Your task to perform on an android device: Open Amazon Image 0: 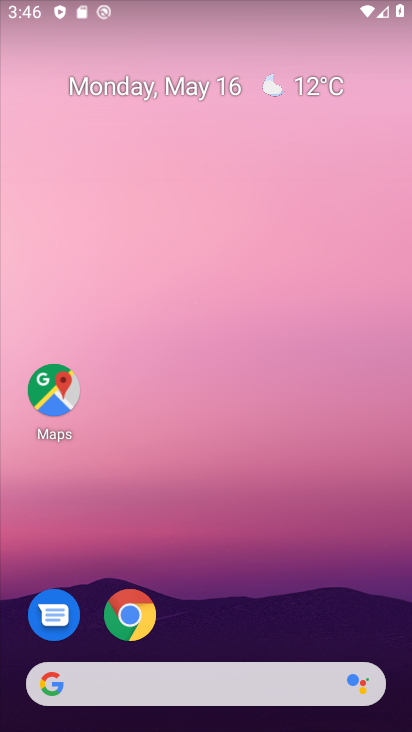
Step 0: click (128, 619)
Your task to perform on an android device: Open Amazon Image 1: 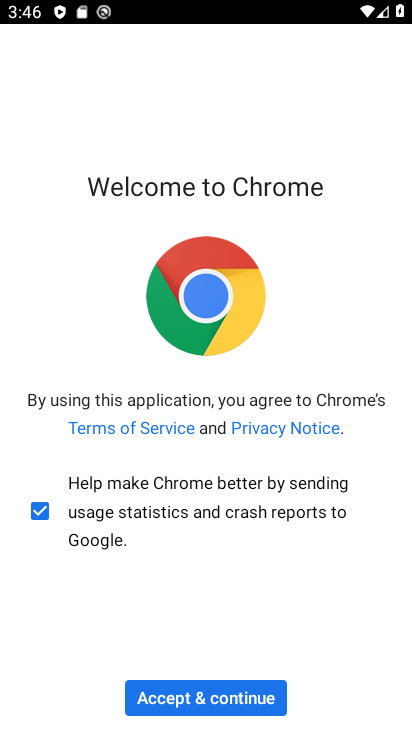
Step 1: click (168, 697)
Your task to perform on an android device: Open Amazon Image 2: 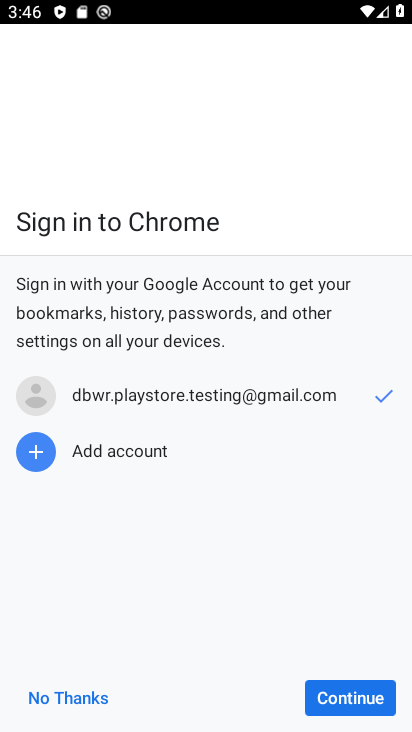
Step 2: click (370, 688)
Your task to perform on an android device: Open Amazon Image 3: 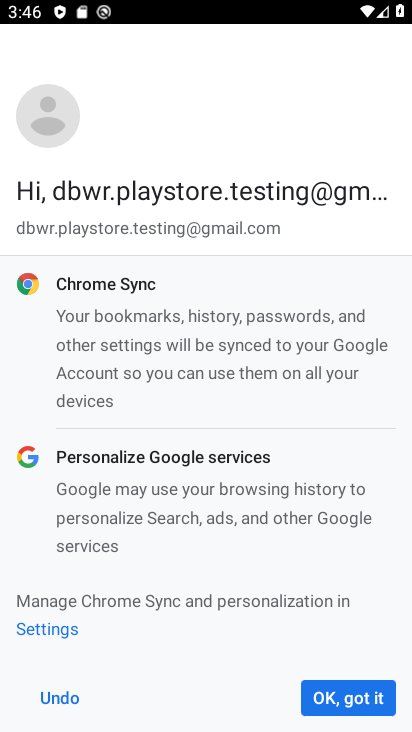
Step 3: click (332, 694)
Your task to perform on an android device: Open Amazon Image 4: 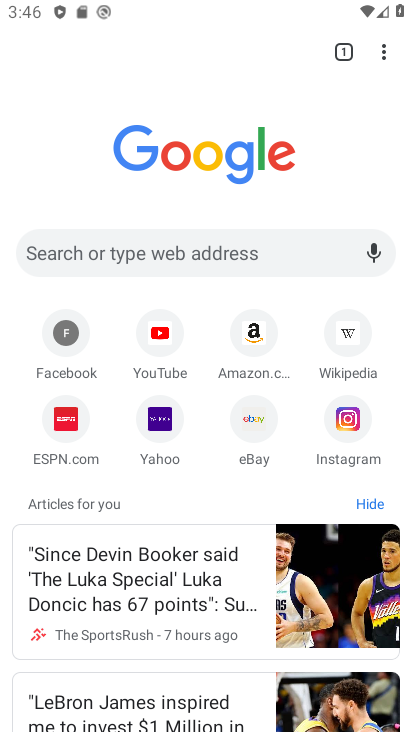
Step 4: click (252, 330)
Your task to perform on an android device: Open Amazon Image 5: 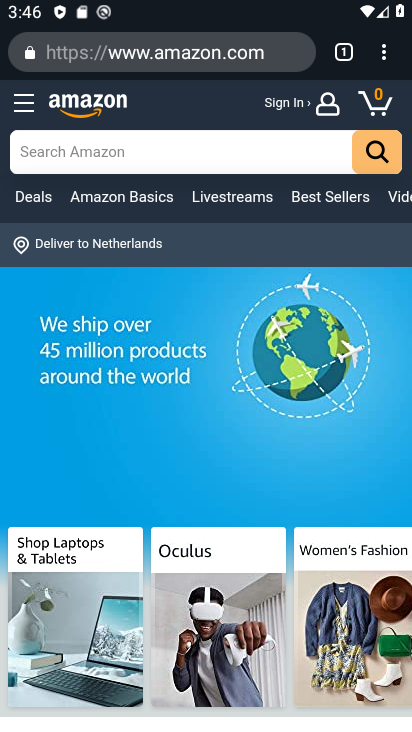
Step 5: task complete